Your task to perform on an android device: Search for the best Nike running shoes on Nike.com Image 0: 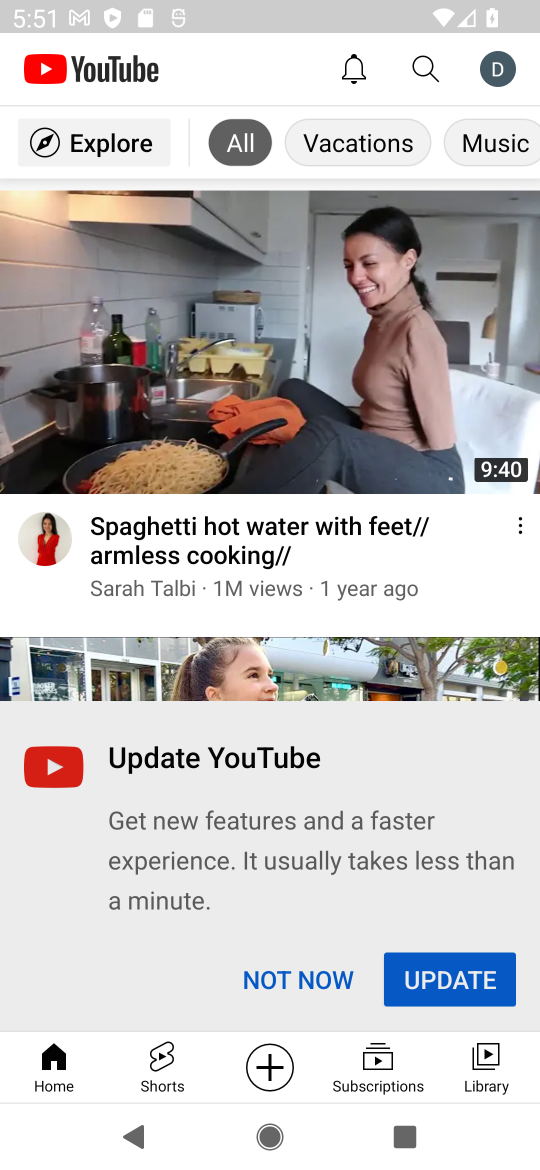
Step 0: press home button
Your task to perform on an android device: Search for the best Nike running shoes on Nike.com Image 1: 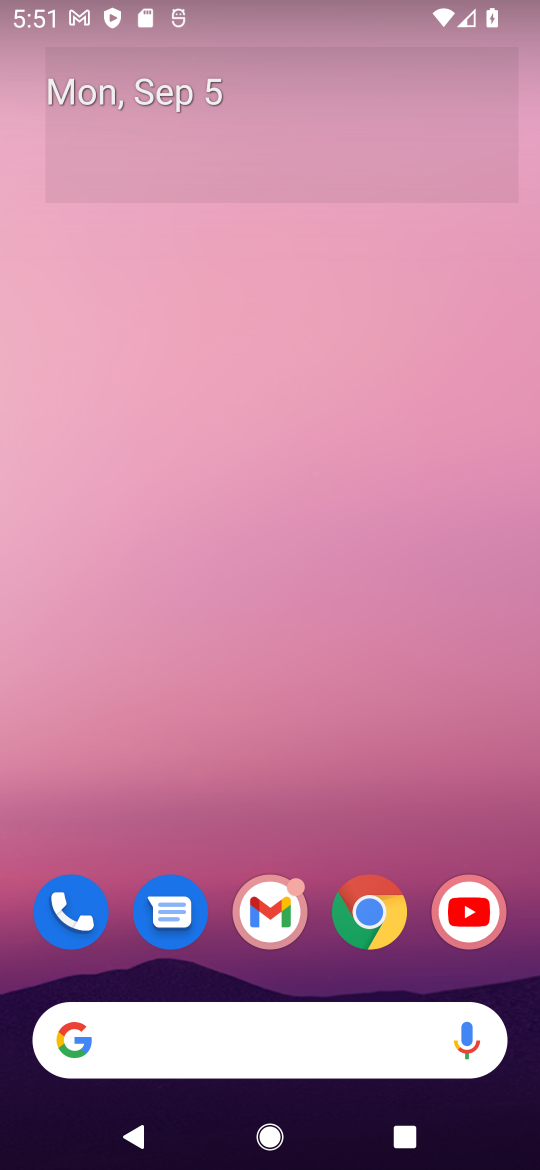
Step 1: click (370, 939)
Your task to perform on an android device: Search for the best Nike running shoes on Nike.com Image 2: 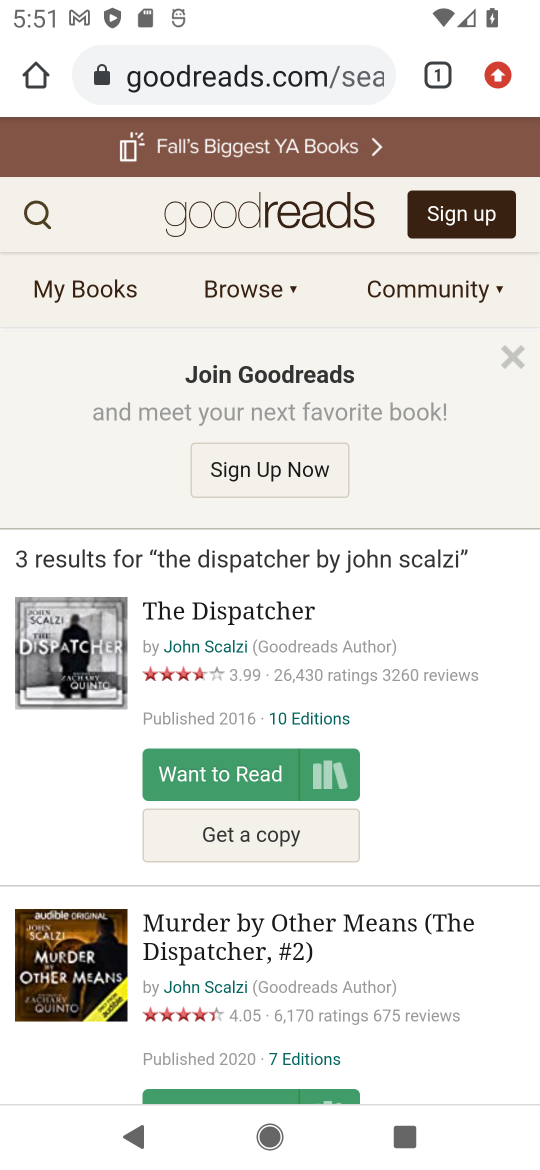
Step 2: click (221, 90)
Your task to perform on an android device: Search for the best Nike running shoes on Nike.com Image 3: 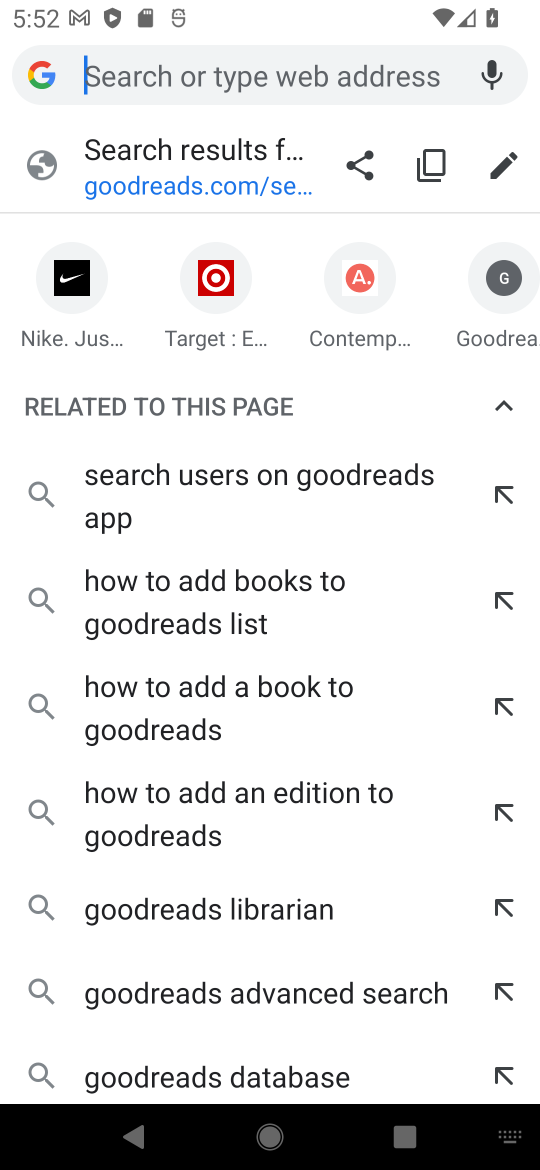
Step 3: type "nike.com"
Your task to perform on an android device: Search for the best Nike running shoes on Nike.com Image 4: 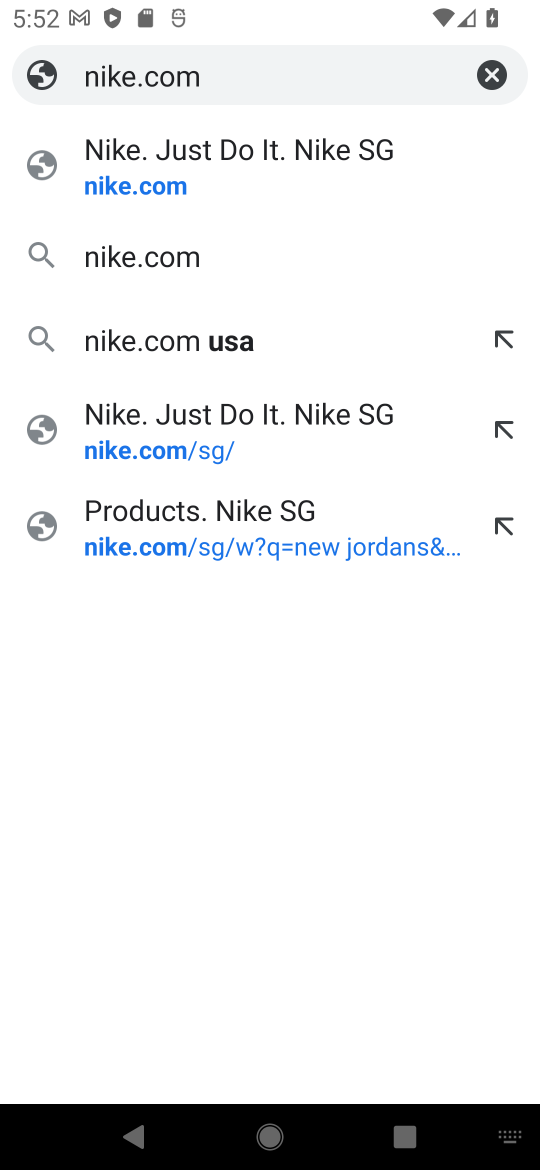
Step 4: press enter
Your task to perform on an android device: Search for the best Nike running shoes on Nike.com Image 5: 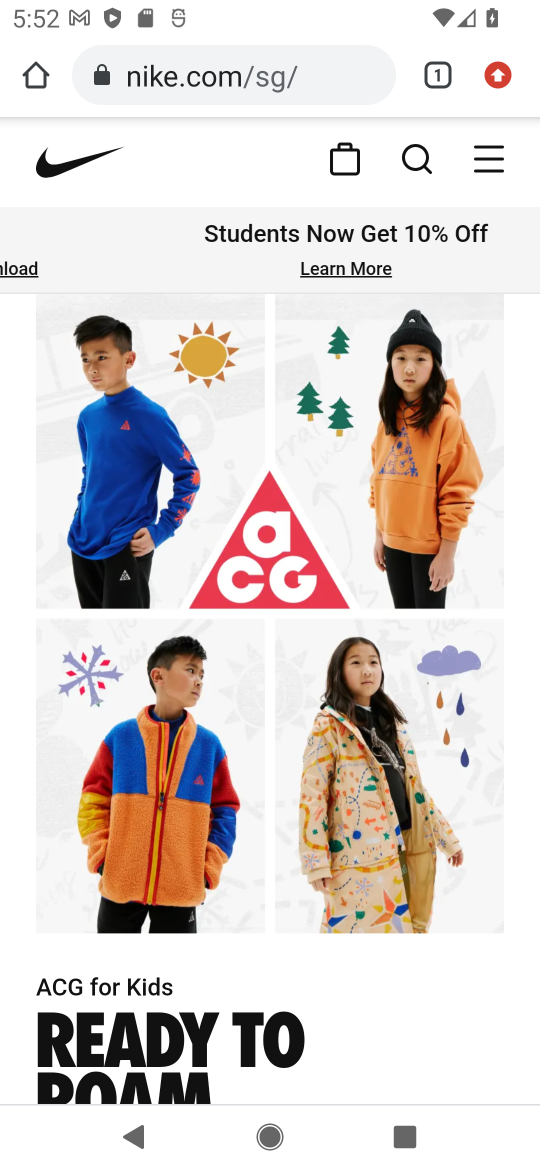
Step 5: click (412, 171)
Your task to perform on an android device: Search for the best Nike running shoes on Nike.com Image 6: 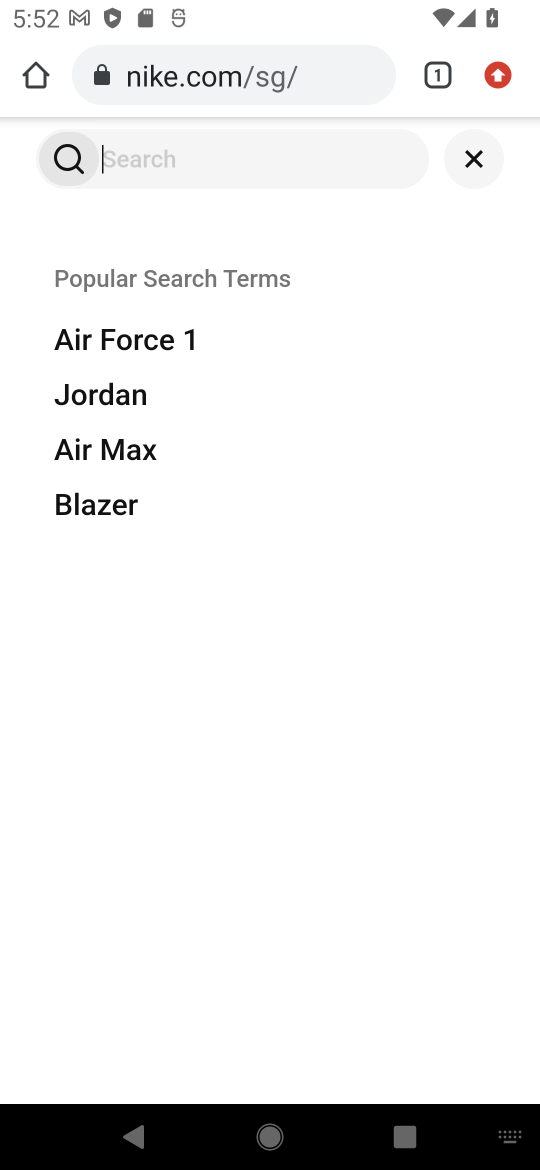
Step 6: type "best nike running shoes"
Your task to perform on an android device: Search for the best Nike running shoes on Nike.com Image 7: 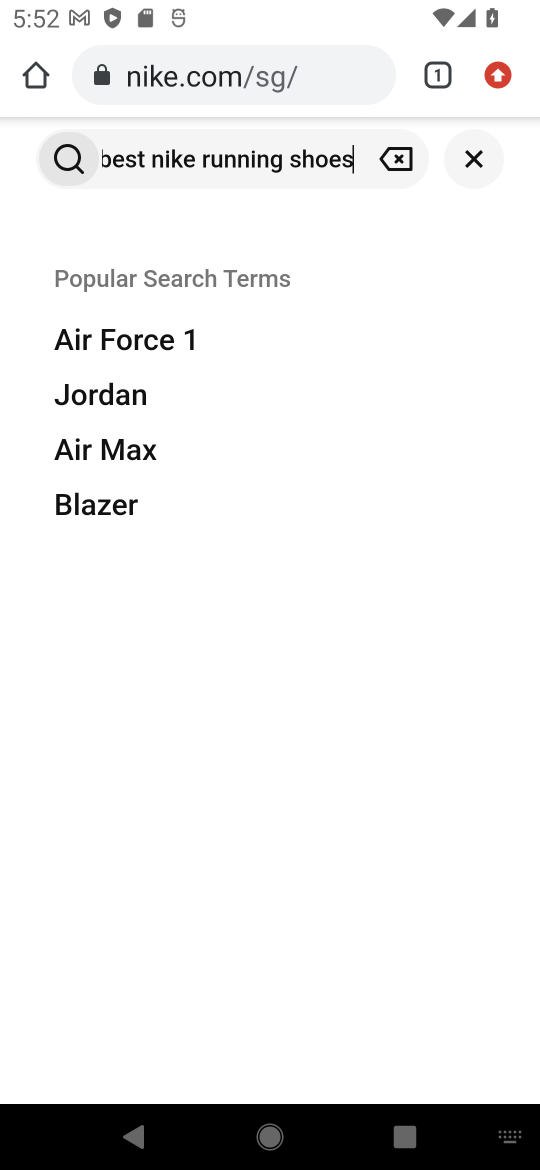
Step 7: press enter
Your task to perform on an android device: Search for the best Nike running shoes on Nike.com Image 8: 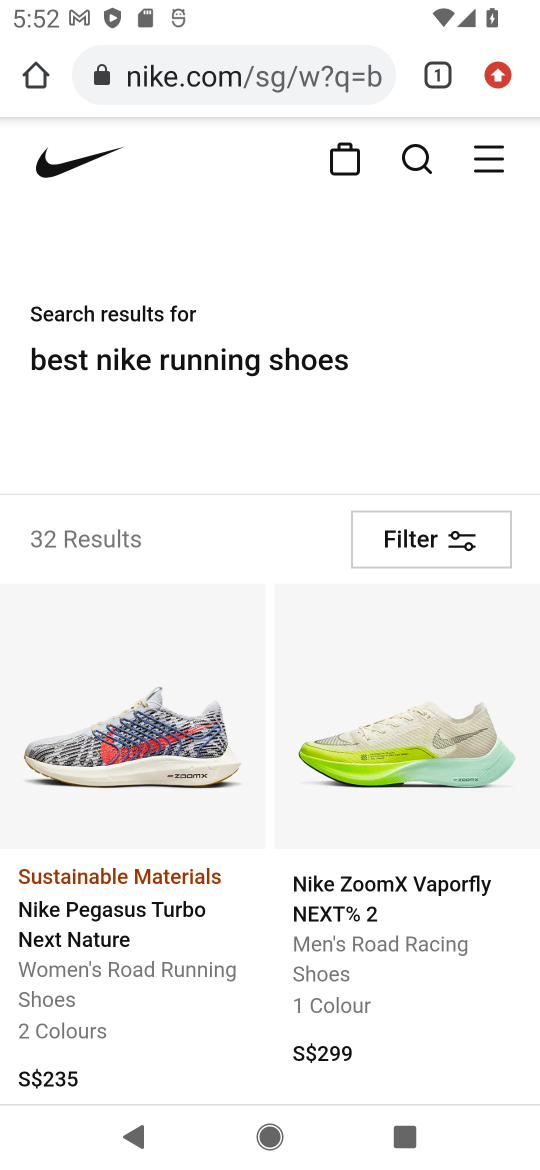
Step 8: click (410, 537)
Your task to perform on an android device: Search for the best Nike running shoes on Nike.com Image 9: 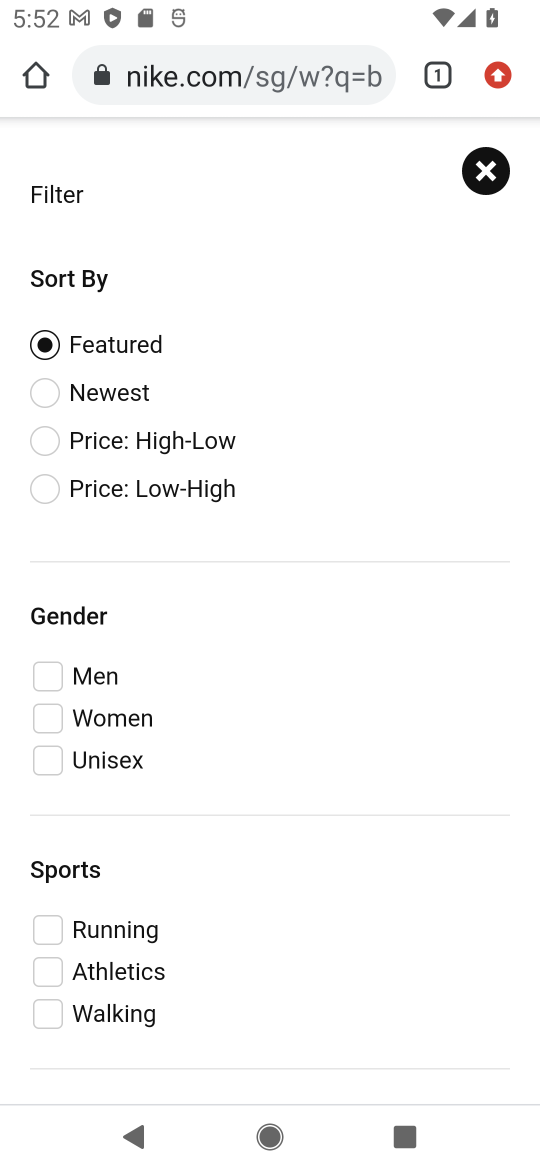
Step 9: click (485, 178)
Your task to perform on an android device: Search for the best Nike running shoes on Nike.com Image 10: 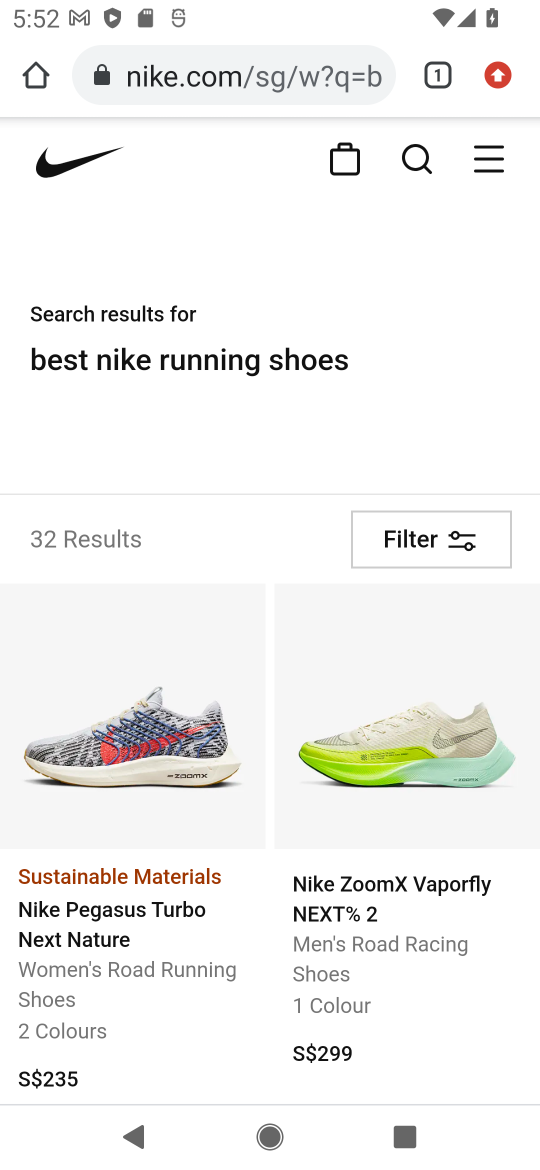
Step 10: task complete